Your task to perform on an android device: Go to ESPN.com Image 0: 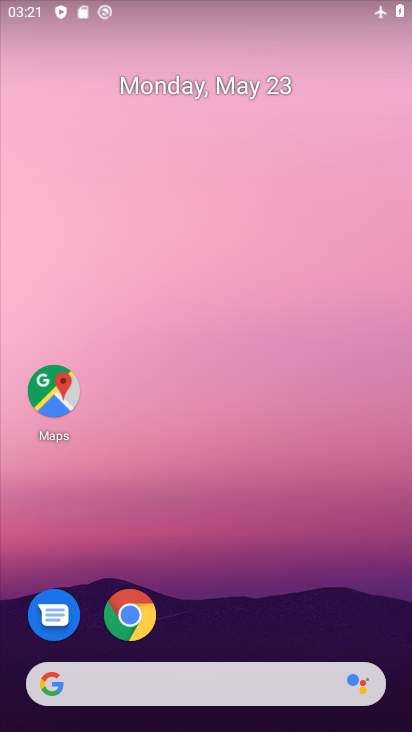
Step 0: click (128, 606)
Your task to perform on an android device: Go to ESPN.com Image 1: 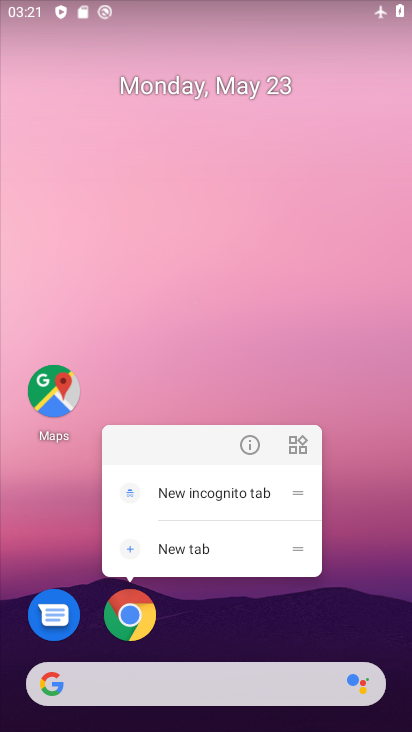
Step 1: click (127, 606)
Your task to perform on an android device: Go to ESPN.com Image 2: 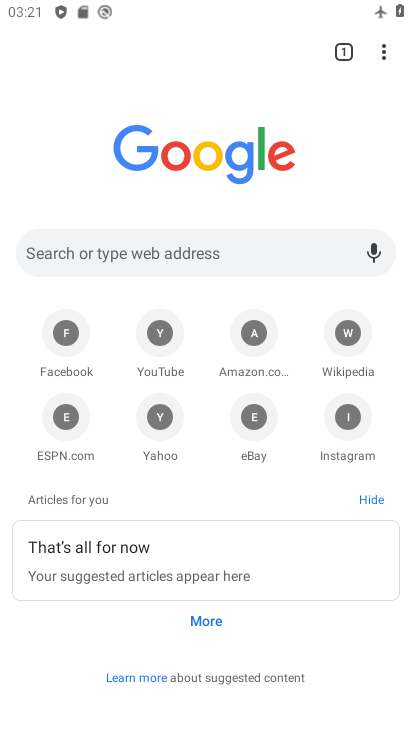
Step 2: click (77, 415)
Your task to perform on an android device: Go to ESPN.com Image 3: 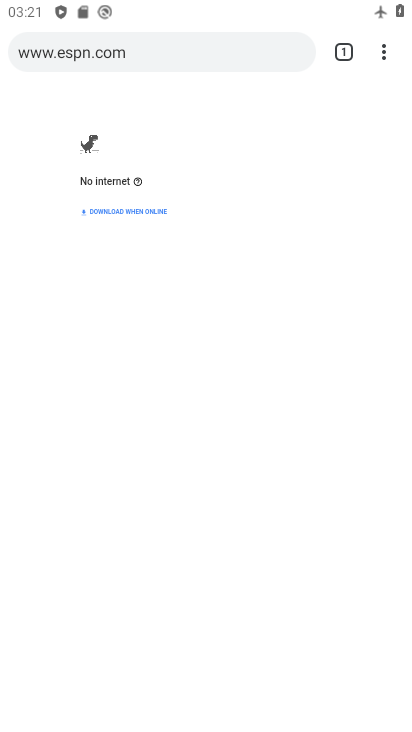
Step 3: task complete